Your task to perform on an android device: Show me the alarms in the clock app Image 0: 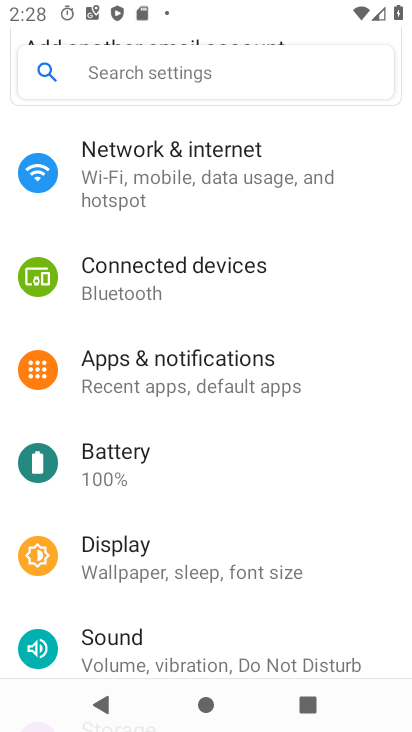
Step 0: press home button
Your task to perform on an android device: Show me the alarms in the clock app Image 1: 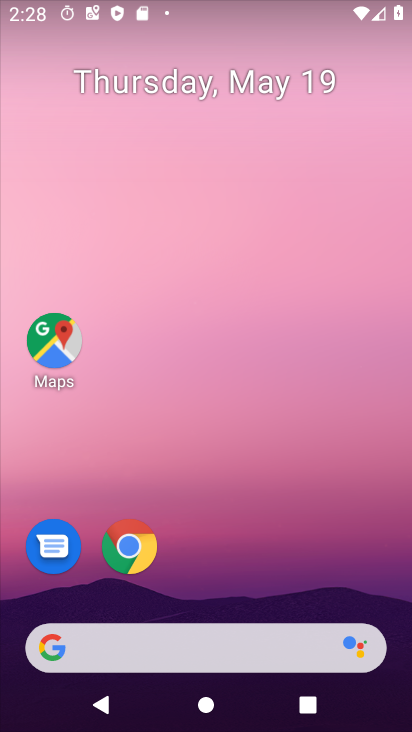
Step 1: drag from (194, 584) to (265, 31)
Your task to perform on an android device: Show me the alarms in the clock app Image 2: 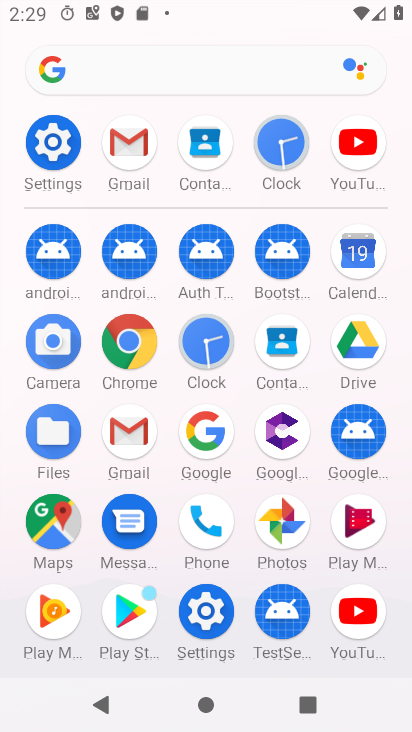
Step 2: click (216, 329)
Your task to perform on an android device: Show me the alarms in the clock app Image 3: 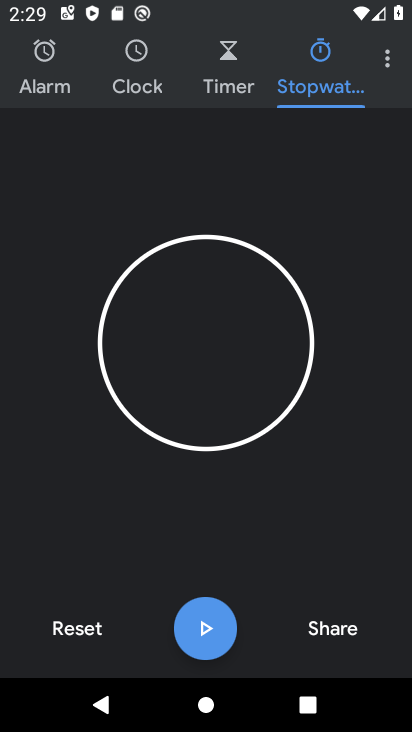
Step 3: click (48, 42)
Your task to perform on an android device: Show me the alarms in the clock app Image 4: 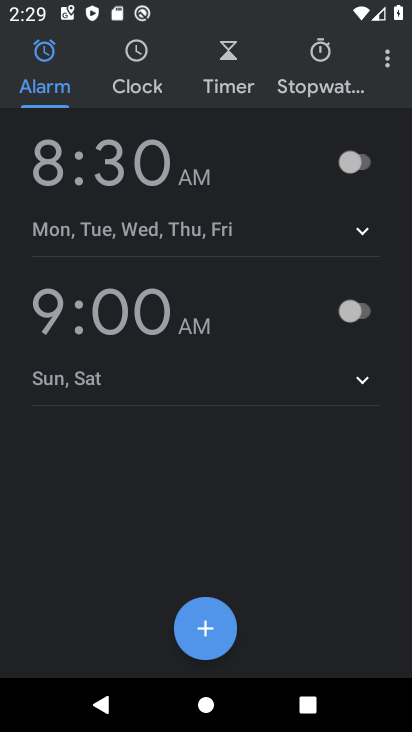
Step 4: task complete